Your task to perform on an android device: create a new album in the google photos Image 0: 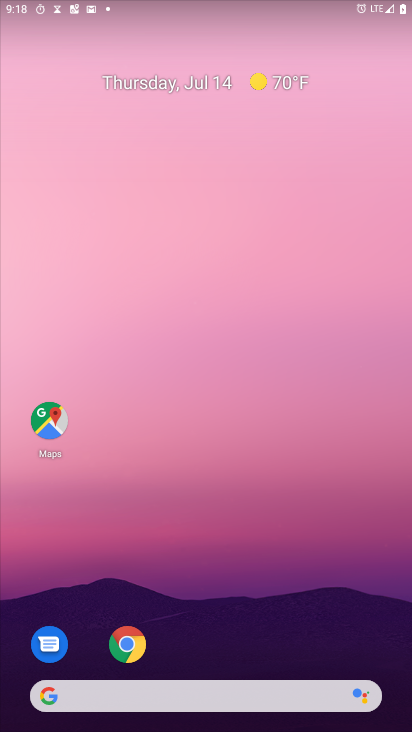
Step 0: drag from (145, 698) to (291, 117)
Your task to perform on an android device: create a new album in the google photos Image 1: 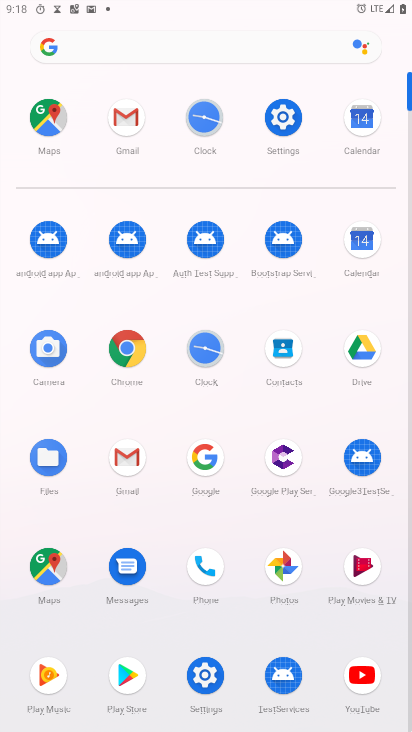
Step 1: click (281, 569)
Your task to perform on an android device: create a new album in the google photos Image 2: 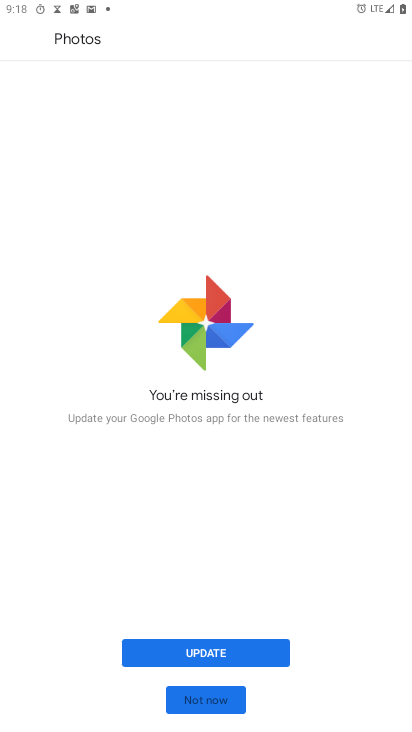
Step 2: click (208, 696)
Your task to perform on an android device: create a new album in the google photos Image 3: 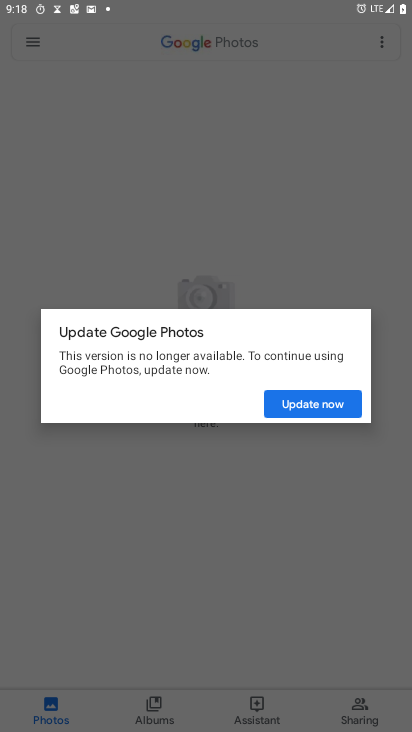
Step 3: click (320, 404)
Your task to perform on an android device: create a new album in the google photos Image 4: 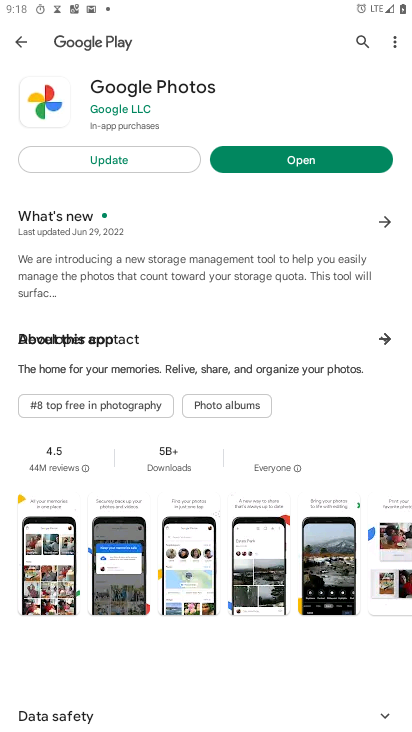
Step 4: click (319, 163)
Your task to perform on an android device: create a new album in the google photos Image 5: 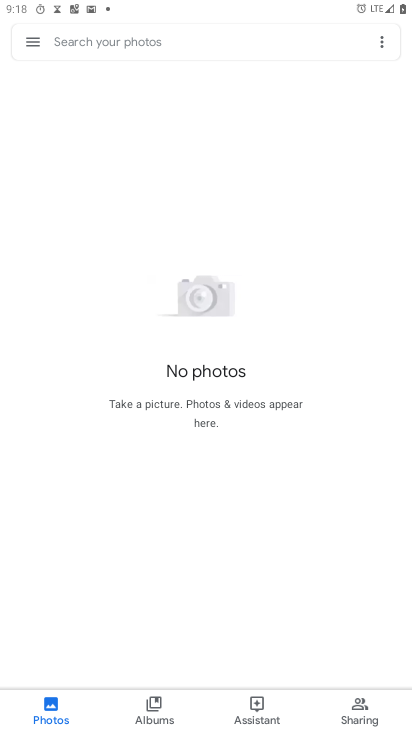
Step 5: click (158, 706)
Your task to perform on an android device: create a new album in the google photos Image 6: 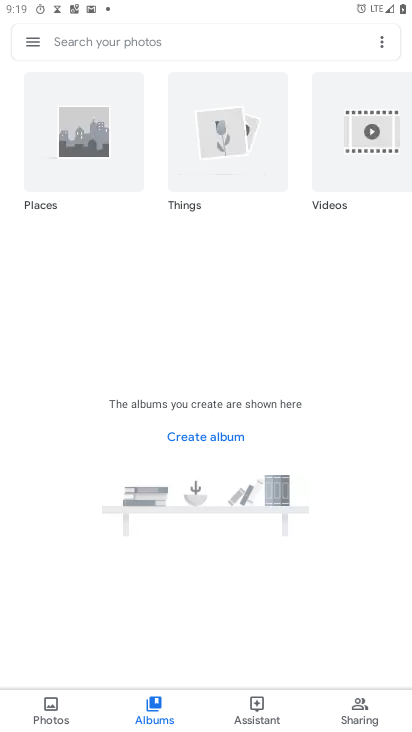
Step 6: task complete